Your task to perform on an android device: open app "Messages" (install if not already installed) and enter user name: "Hersey@inbox.com" and password: "facings" Image 0: 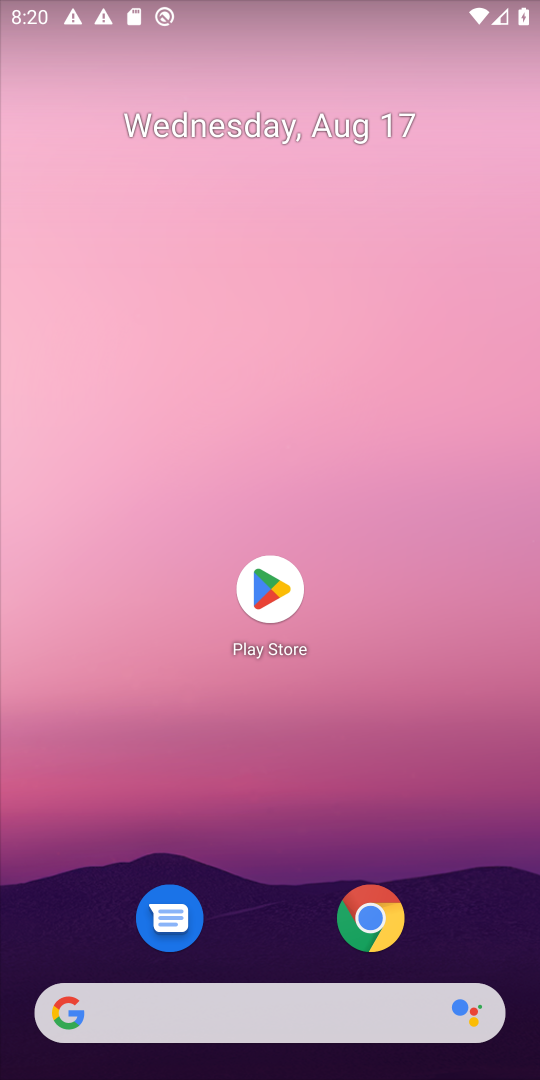
Step 0: click (277, 591)
Your task to perform on an android device: open app "Messages" (install if not already installed) and enter user name: "Hersey@inbox.com" and password: "facings" Image 1: 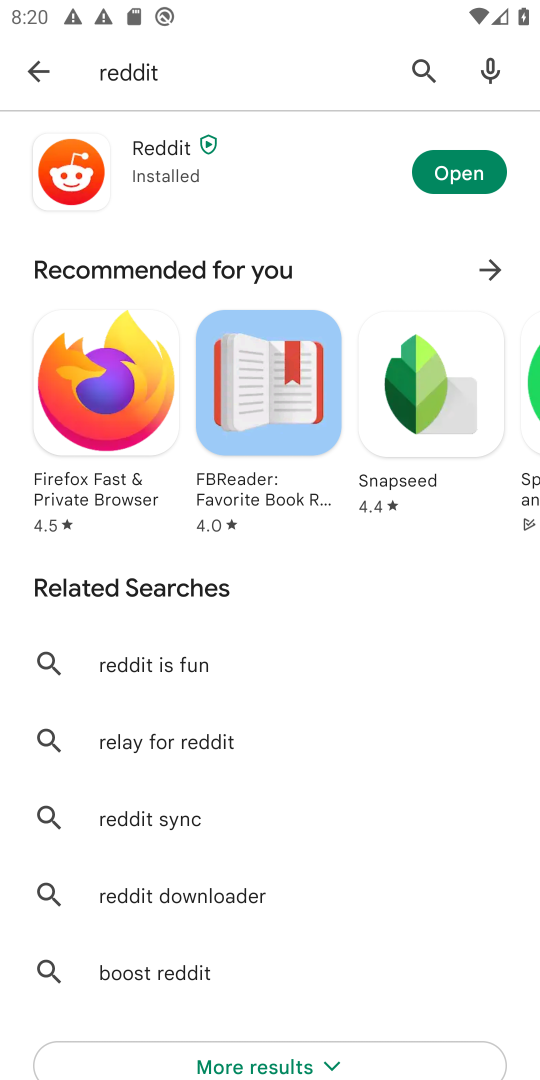
Step 1: click (421, 67)
Your task to perform on an android device: open app "Messages" (install if not already installed) and enter user name: "Hersey@inbox.com" and password: "facings" Image 2: 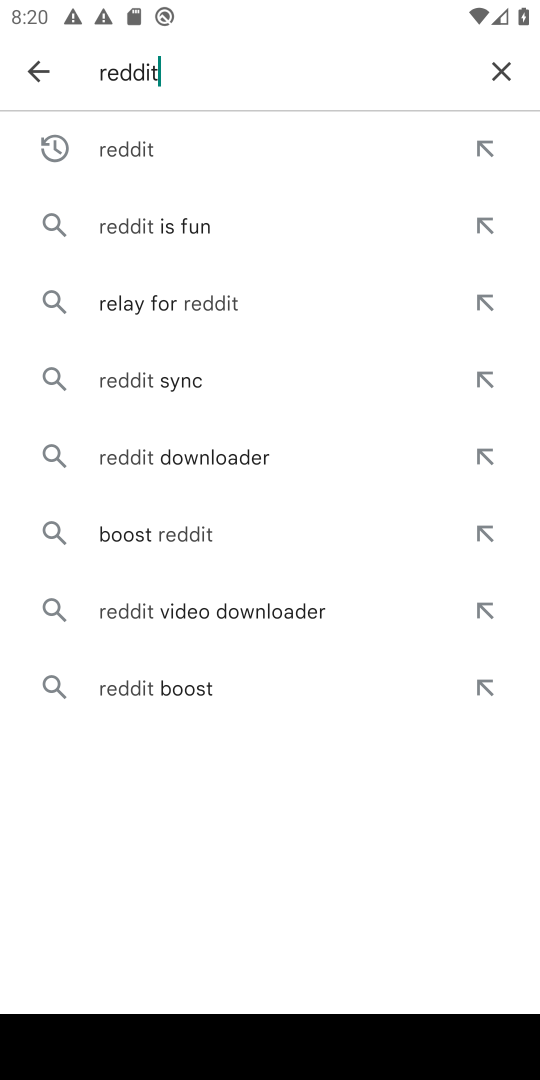
Step 2: press back button
Your task to perform on an android device: open app "Messages" (install if not already installed) and enter user name: "Hersey@inbox.com" and password: "facings" Image 3: 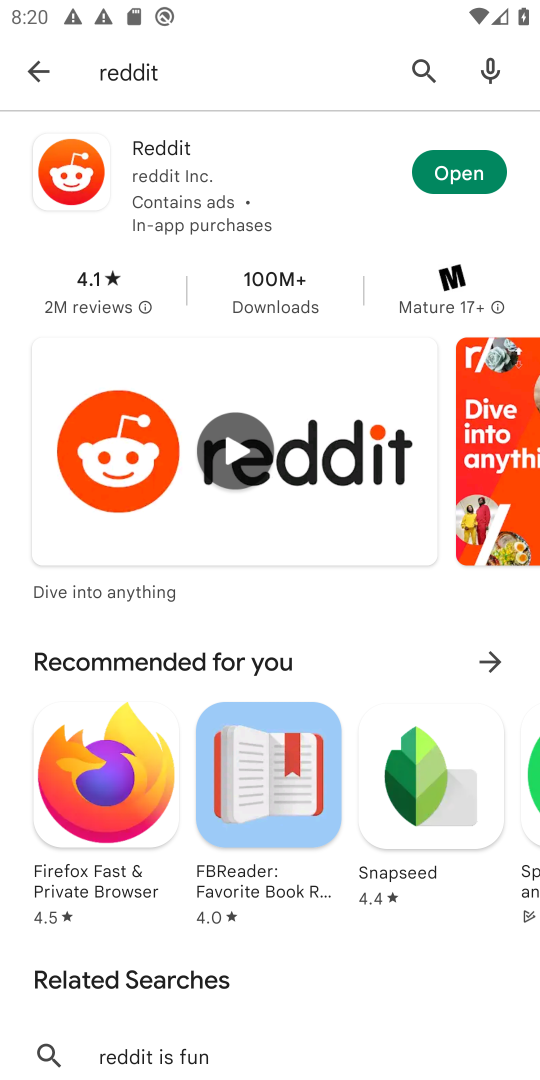
Step 3: click (418, 51)
Your task to perform on an android device: open app "Messages" (install if not already installed) and enter user name: "Hersey@inbox.com" and password: "facings" Image 4: 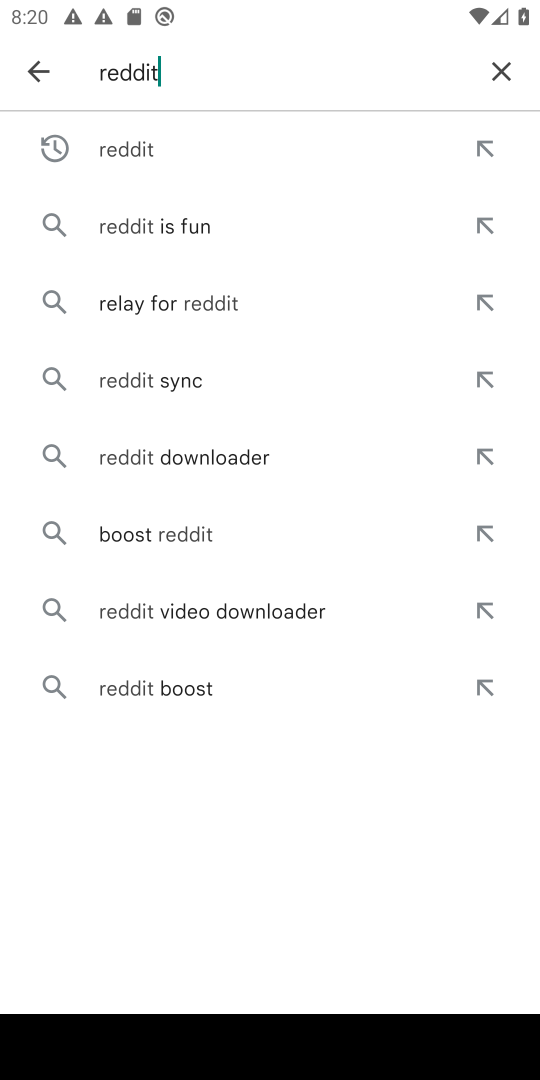
Step 4: click (496, 70)
Your task to perform on an android device: open app "Messages" (install if not already installed) and enter user name: "Hersey@inbox.com" and password: "facings" Image 5: 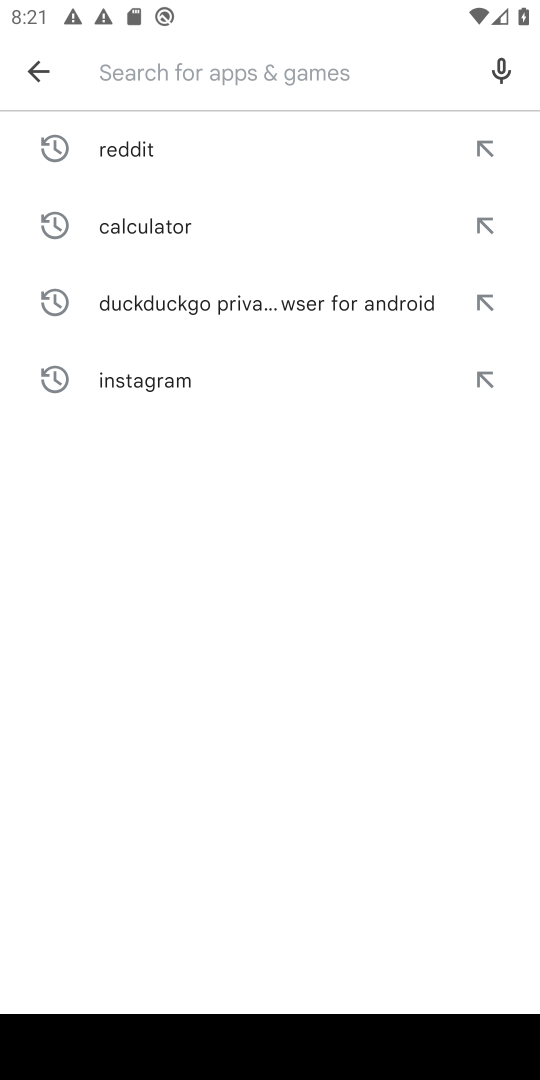
Step 5: type "Messages"
Your task to perform on an android device: open app "Messages" (install if not already installed) and enter user name: "Hersey@inbox.com" and password: "facings" Image 6: 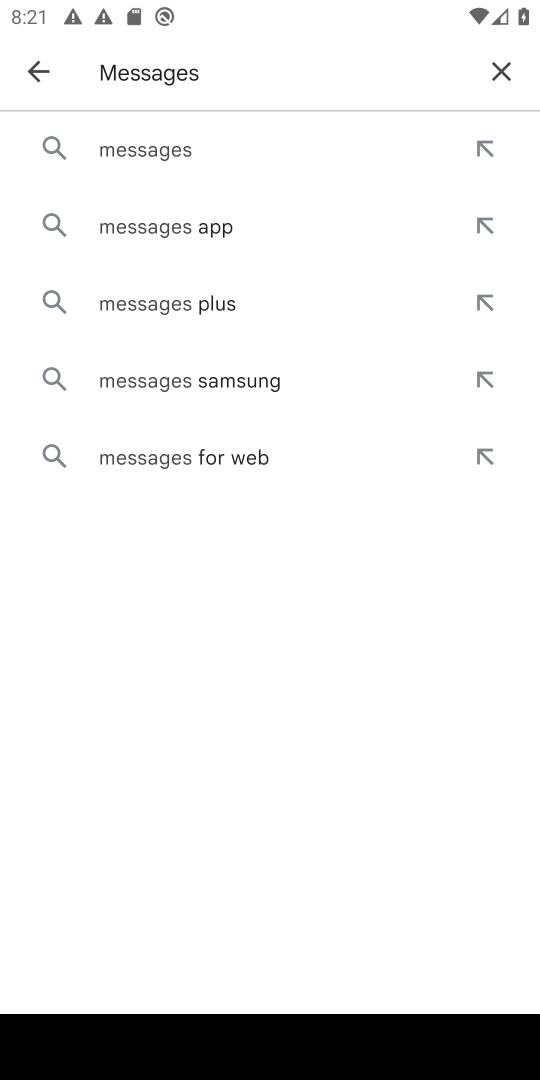
Step 6: click (152, 153)
Your task to perform on an android device: open app "Messages" (install if not already installed) and enter user name: "Hersey@inbox.com" and password: "facings" Image 7: 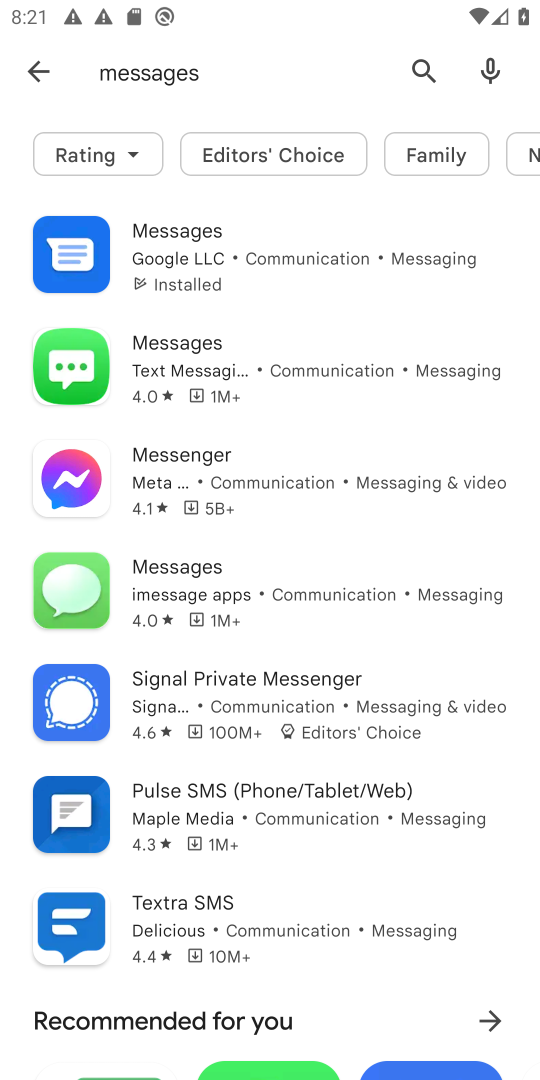
Step 7: click (181, 244)
Your task to perform on an android device: open app "Messages" (install if not already installed) and enter user name: "Hersey@inbox.com" and password: "facings" Image 8: 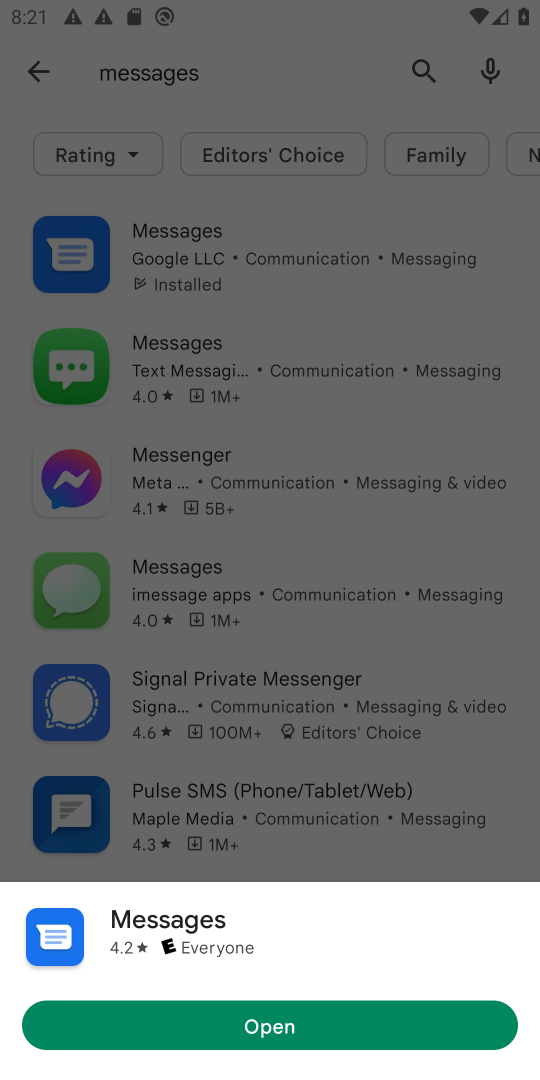
Step 8: click (267, 1031)
Your task to perform on an android device: open app "Messages" (install if not already installed) and enter user name: "Hersey@inbox.com" and password: "facings" Image 9: 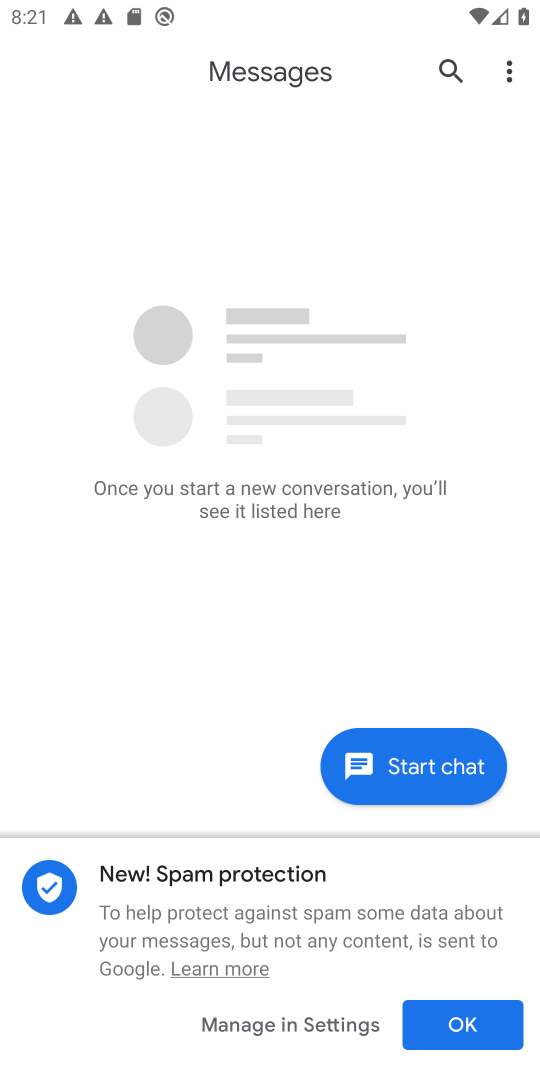
Step 9: click (466, 1015)
Your task to perform on an android device: open app "Messages" (install if not already installed) and enter user name: "Hersey@inbox.com" and password: "facings" Image 10: 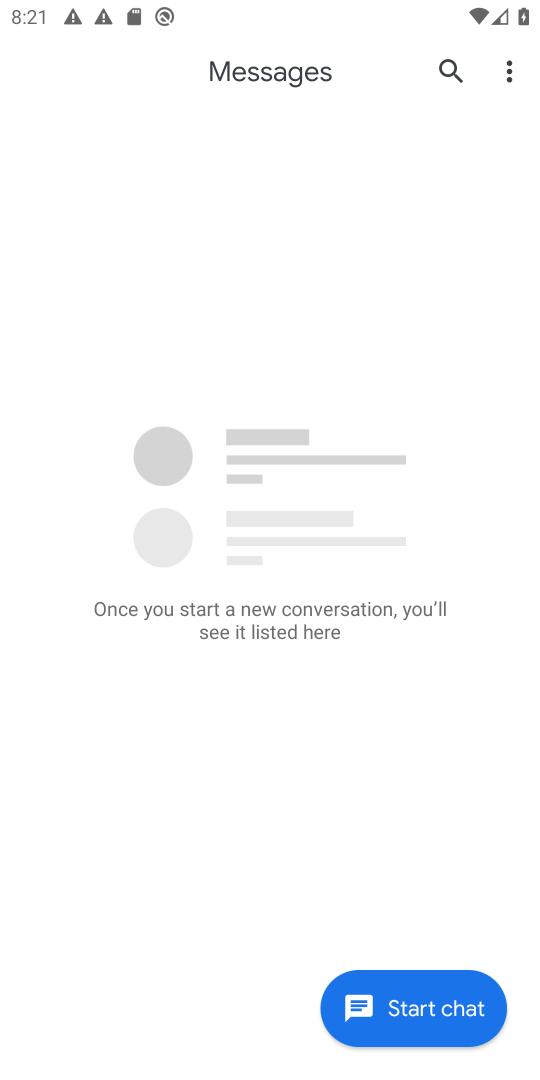
Step 10: task complete